Your task to perform on an android device: set an alarm Image 0: 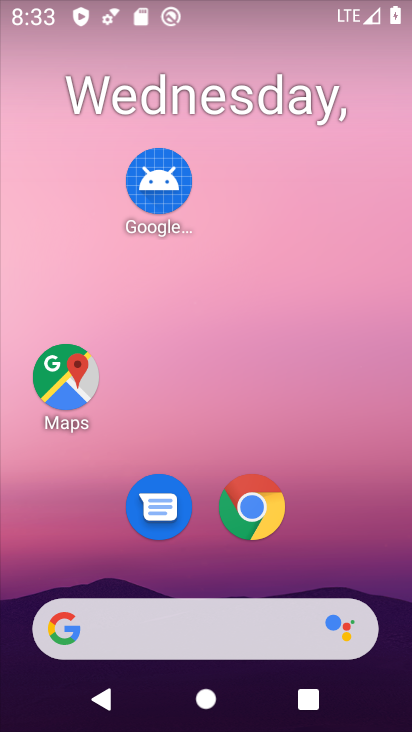
Step 0: drag from (193, 577) to (402, 48)
Your task to perform on an android device: set an alarm Image 1: 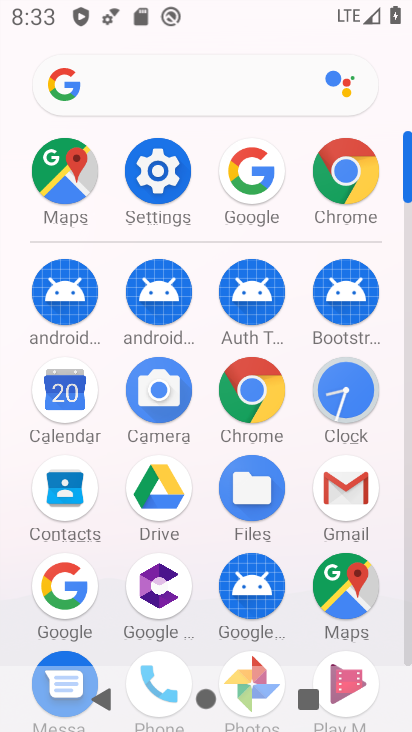
Step 1: click (335, 391)
Your task to perform on an android device: set an alarm Image 2: 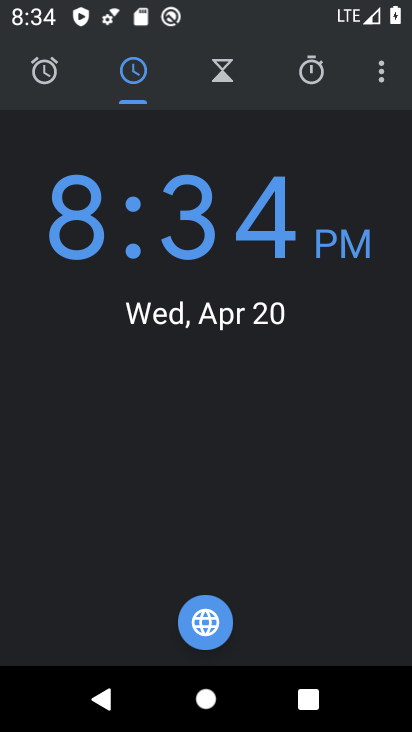
Step 2: click (24, 65)
Your task to perform on an android device: set an alarm Image 3: 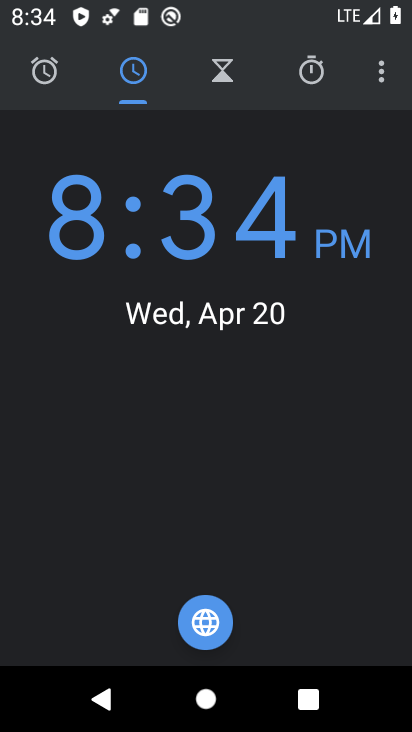
Step 3: click (40, 67)
Your task to perform on an android device: set an alarm Image 4: 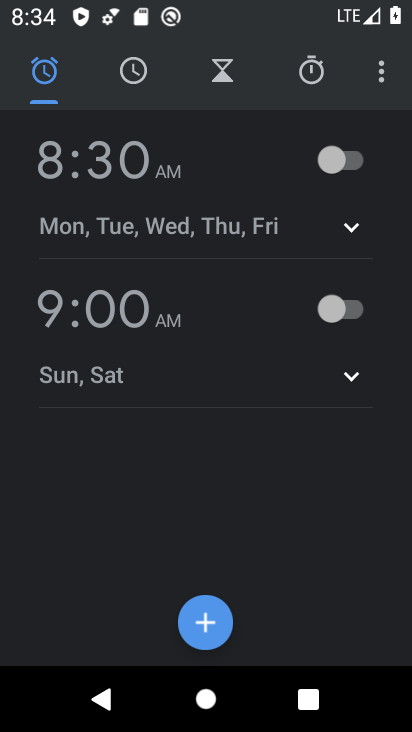
Step 4: click (198, 624)
Your task to perform on an android device: set an alarm Image 5: 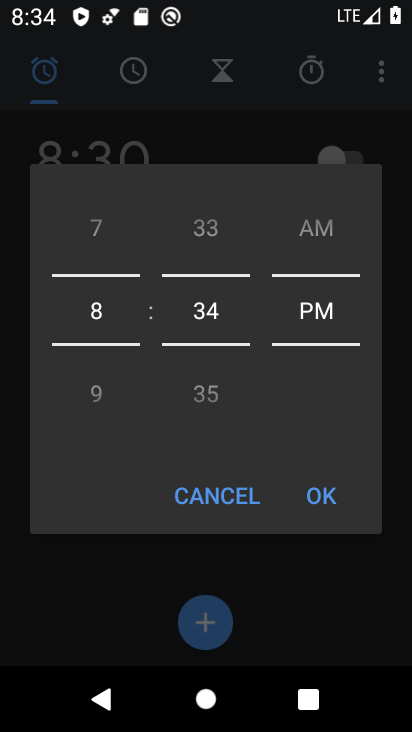
Step 5: click (304, 502)
Your task to perform on an android device: set an alarm Image 6: 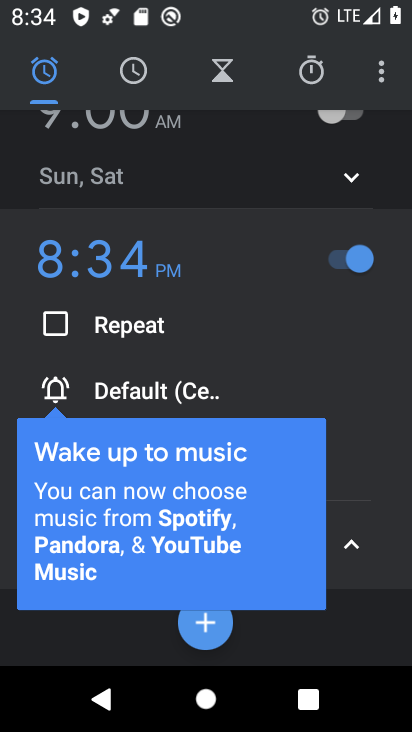
Step 6: task complete